Your task to perform on an android device: Open Yahoo.com Image 0: 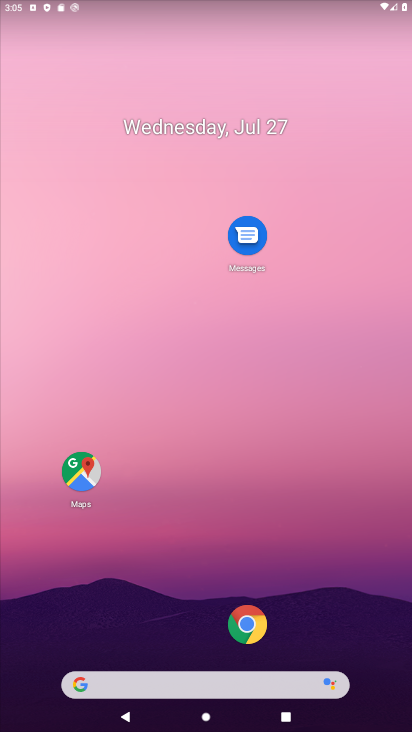
Step 0: click (243, 628)
Your task to perform on an android device: Open Yahoo.com Image 1: 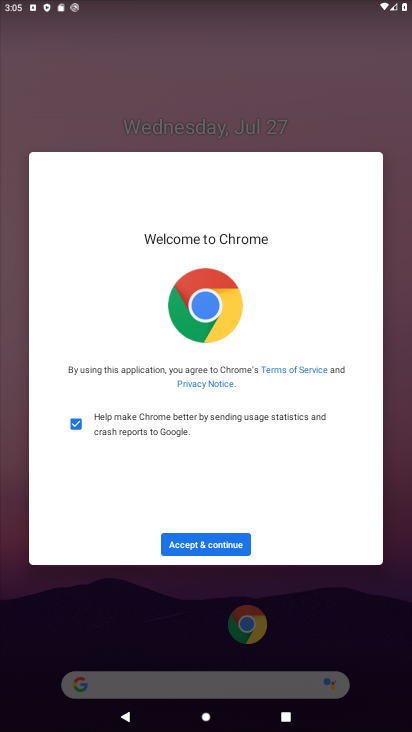
Step 1: click (197, 554)
Your task to perform on an android device: Open Yahoo.com Image 2: 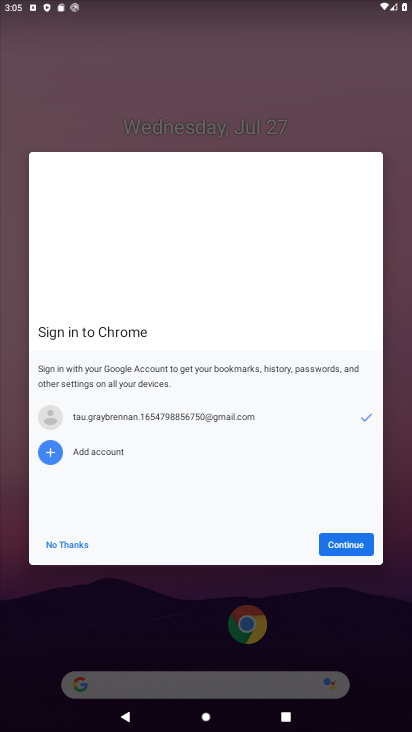
Step 2: click (327, 549)
Your task to perform on an android device: Open Yahoo.com Image 3: 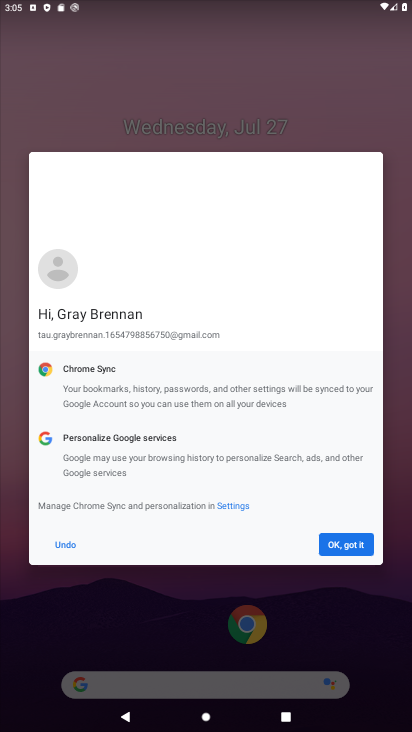
Step 3: click (327, 549)
Your task to perform on an android device: Open Yahoo.com Image 4: 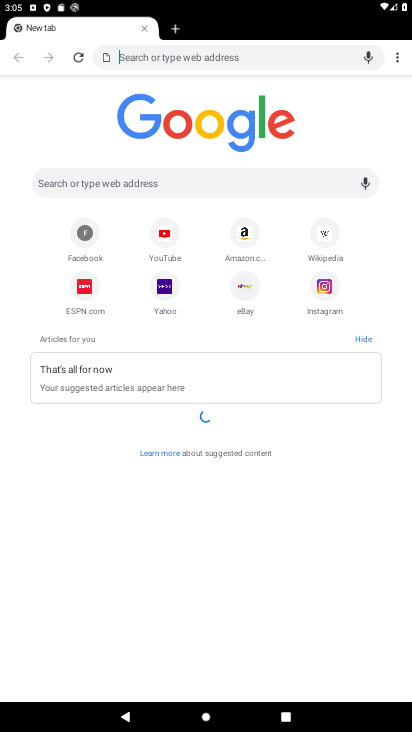
Step 4: click (157, 290)
Your task to perform on an android device: Open Yahoo.com Image 5: 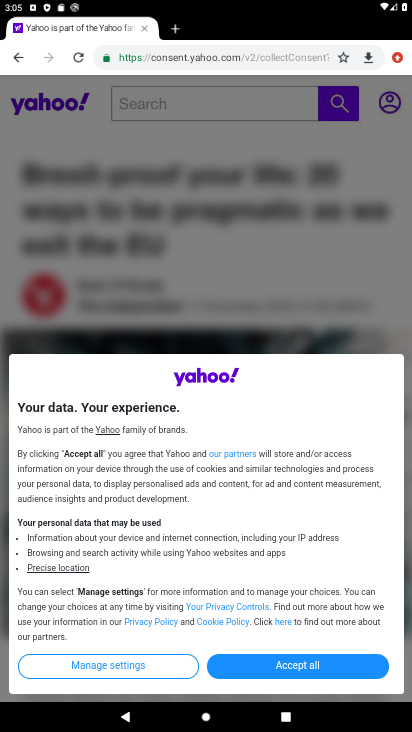
Step 5: task complete